Your task to perform on an android device: Open Wikipedia Image 0: 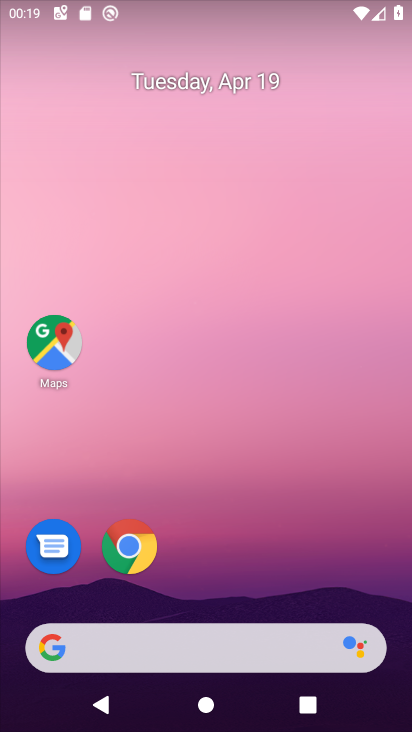
Step 0: click (131, 543)
Your task to perform on an android device: Open Wikipedia Image 1: 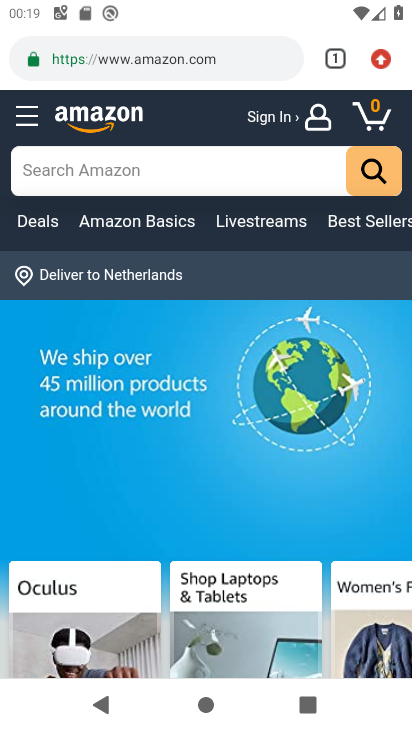
Step 1: click (333, 54)
Your task to perform on an android device: Open Wikipedia Image 2: 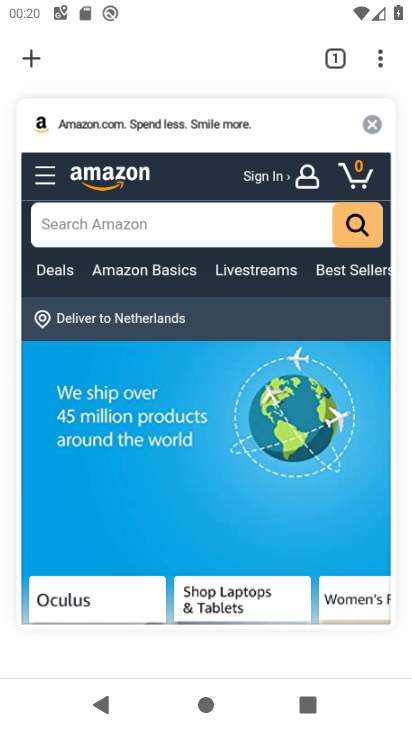
Step 2: click (372, 121)
Your task to perform on an android device: Open Wikipedia Image 3: 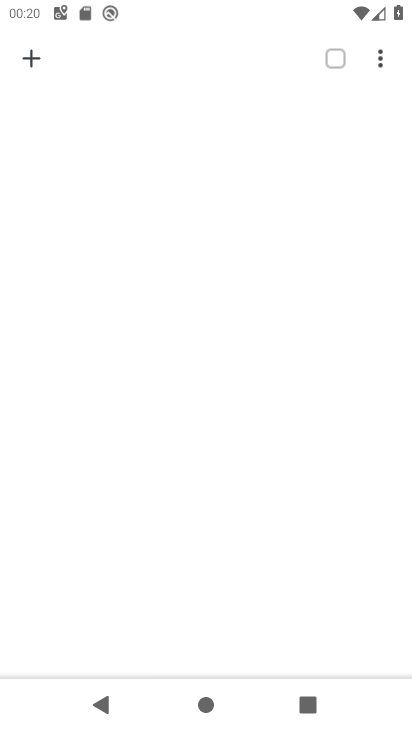
Step 3: click (34, 64)
Your task to perform on an android device: Open Wikipedia Image 4: 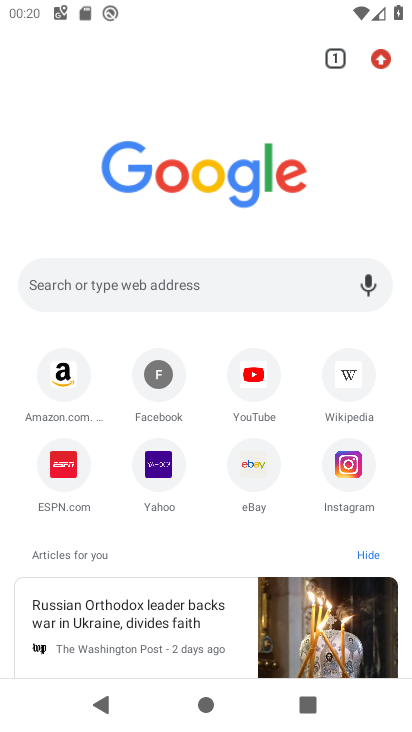
Step 4: drag from (193, 601) to (212, 304)
Your task to perform on an android device: Open Wikipedia Image 5: 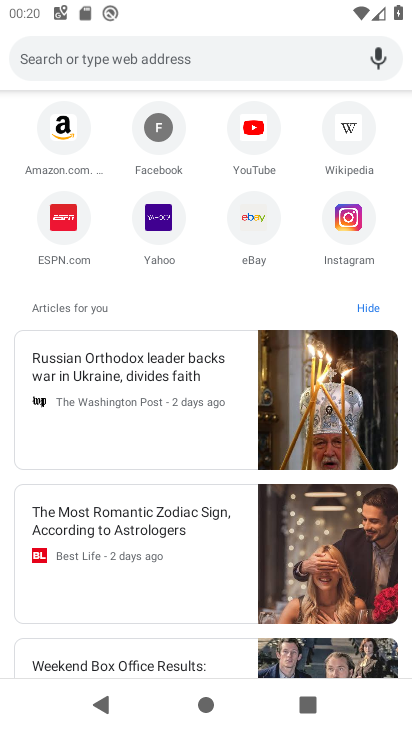
Step 5: click (359, 133)
Your task to perform on an android device: Open Wikipedia Image 6: 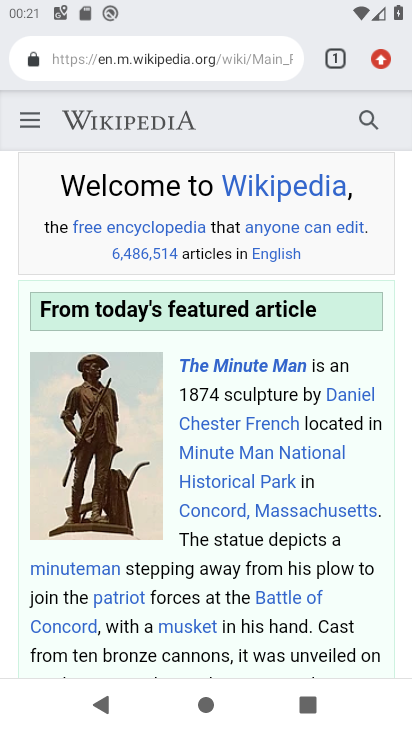
Step 6: task complete